Your task to perform on an android device: open device folders in google photos Image 0: 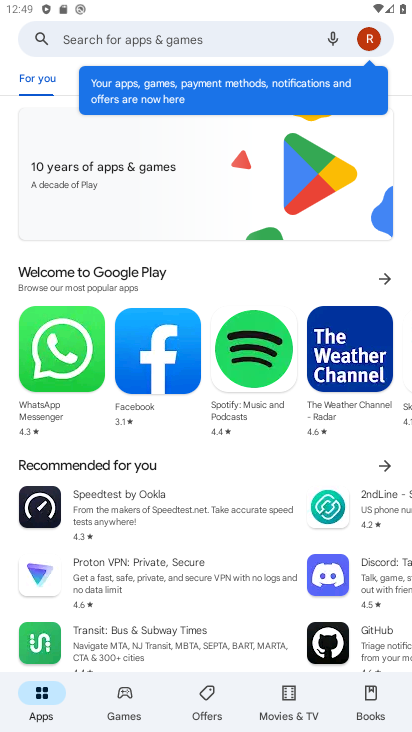
Step 0: press home button
Your task to perform on an android device: open device folders in google photos Image 1: 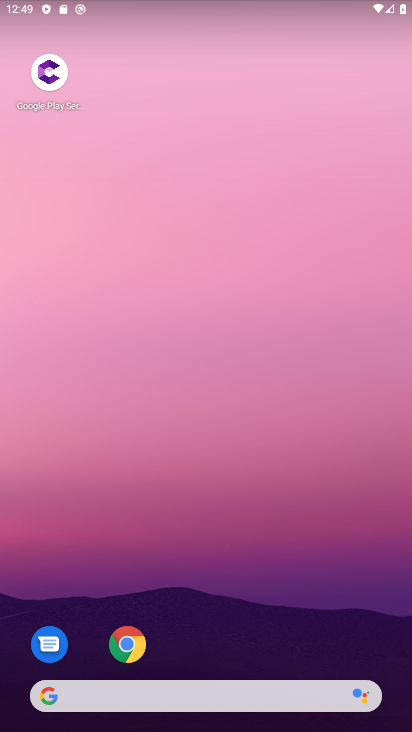
Step 1: drag from (258, 573) to (296, 137)
Your task to perform on an android device: open device folders in google photos Image 2: 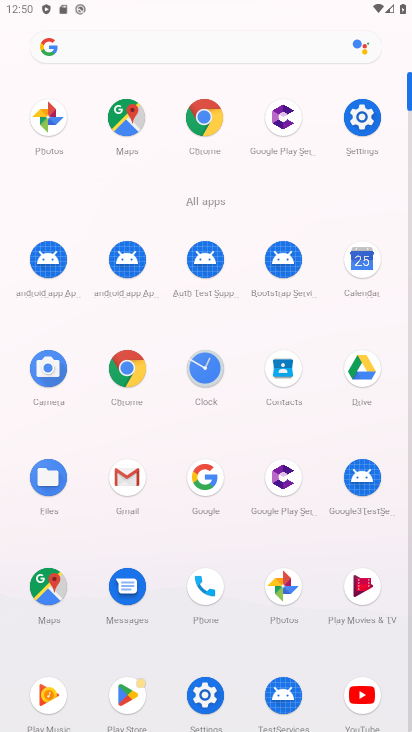
Step 2: click (279, 584)
Your task to perform on an android device: open device folders in google photos Image 3: 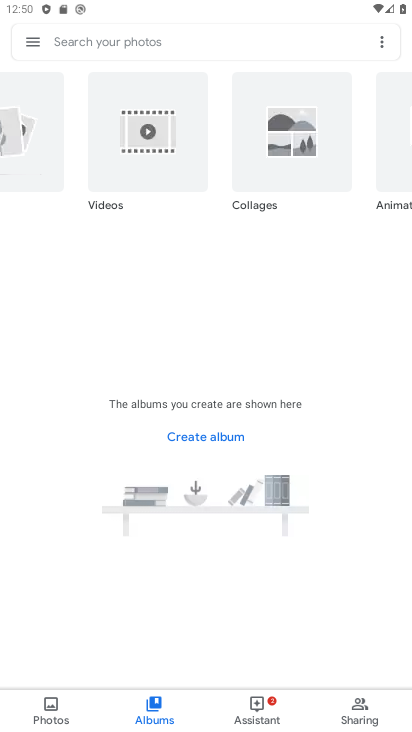
Step 3: click (33, 37)
Your task to perform on an android device: open device folders in google photos Image 4: 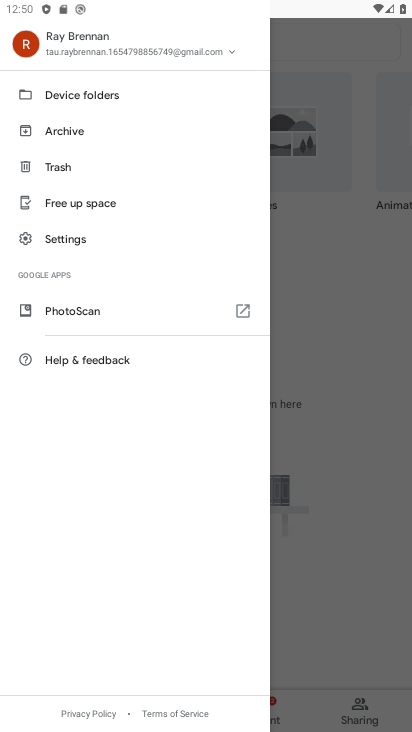
Step 4: click (107, 103)
Your task to perform on an android device: open device folders in google photos Image 5: 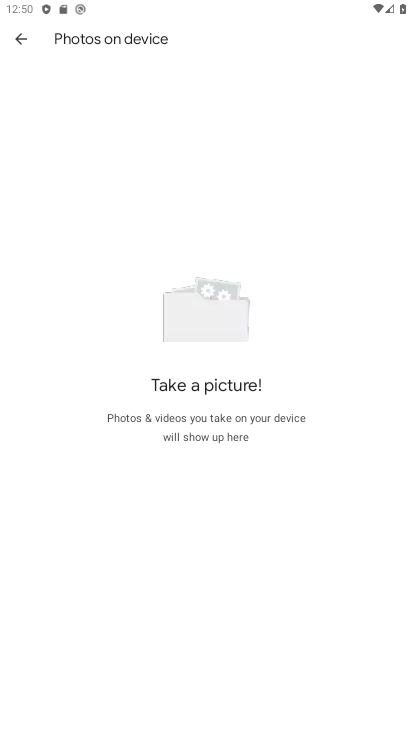
Step 5: task complete